Your task to perform on an android device: turn off data saver in the chrome app Image 0: 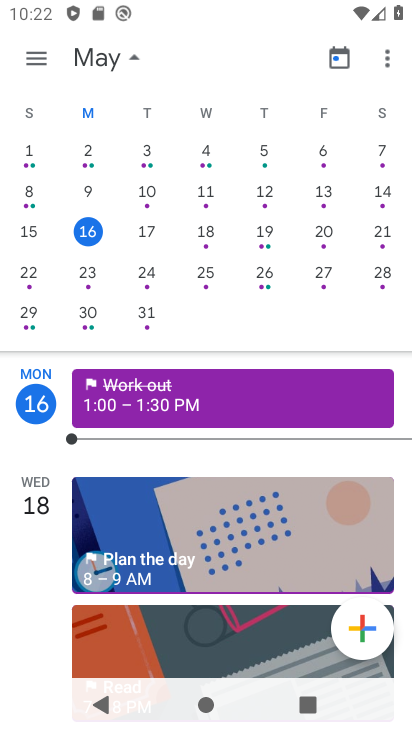
Step 0: press home button
Your task to perform on an android device: turn off data saver in the chrome app Image 1: 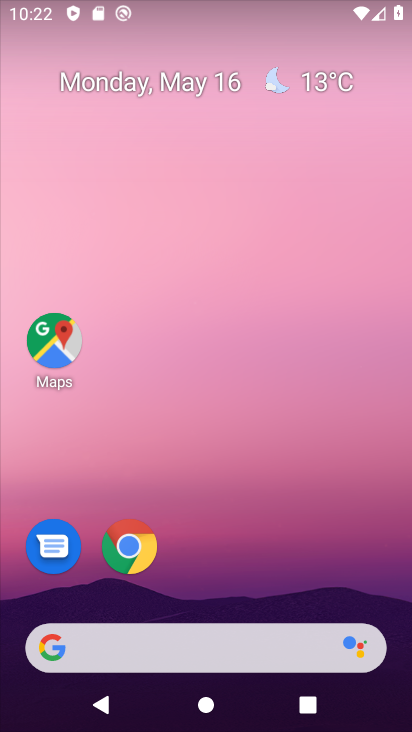
Step 1: drag from (311, 465) to (325, 57)
Your task to perform on an android device: turn off data saver in the chrome app Image 2: 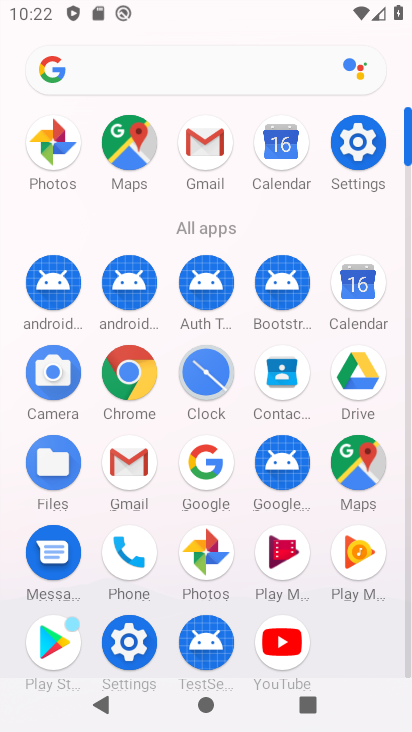
Step 2: click (122, 380)
Your task to perform on an android device: turn off data saver in the chrome app Image 3: 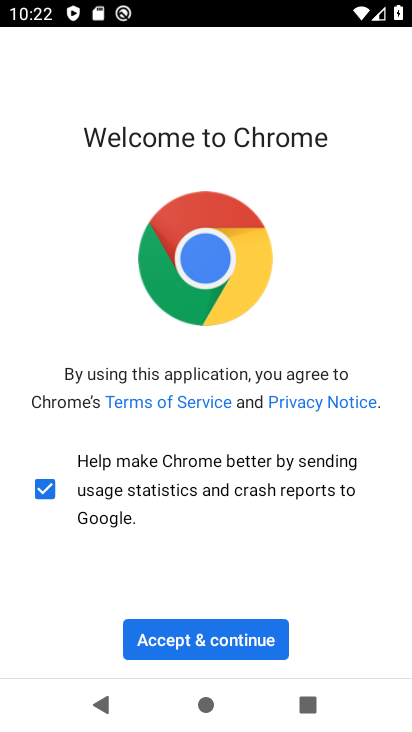
Step 3: click (233, 637)
Your task to perform on an android device: turn off data saver in the chrome app Image 4: 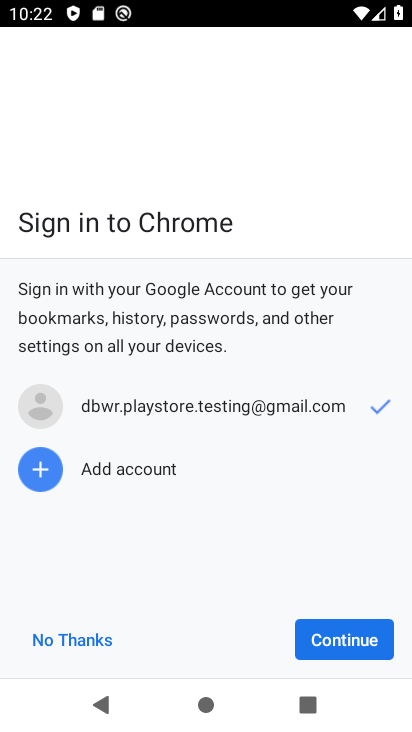
Step 4: click (349, 635)
Your task to perform on an android device: turn off data saver in the chrome app Image 5: 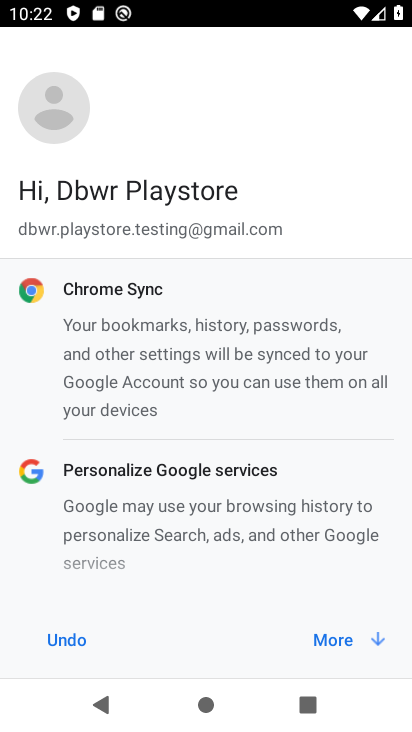
Step 5: click (352, 636)
Your task to perform on an android device: turn off data saver in the chrome app Image 6: 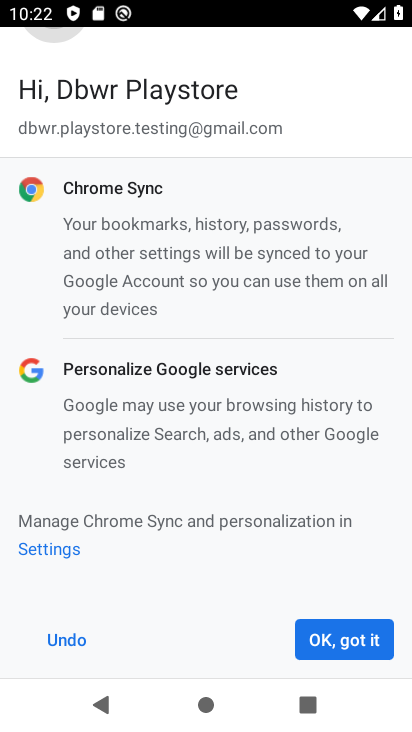
Step 6: click (353, 636)
Your task to perform on an android device: turn off data saver in the chrome app Image 7: 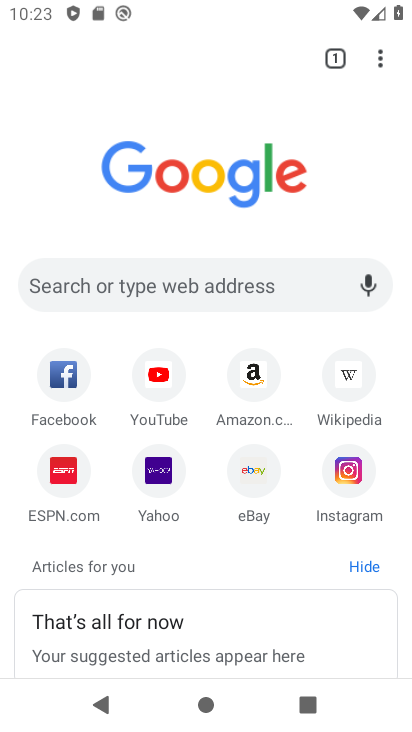
Step 7: drag from (382, 48) to (183, 511)
Your task to perform on an android device: turn off data saver in the chrome app Image 8: 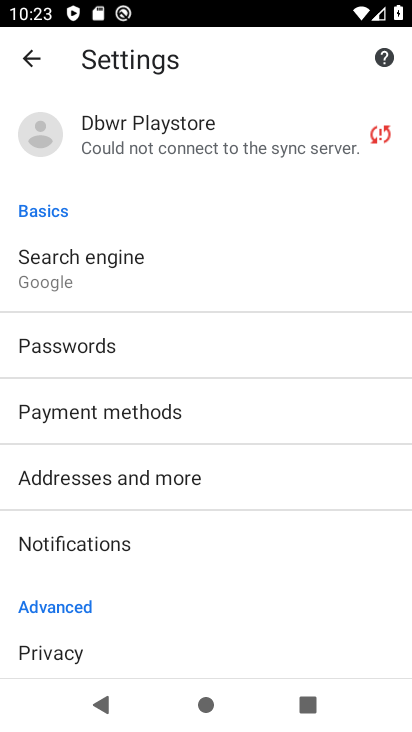
Step 8: drag from (201, 621) to (358, 114)
Your task to perform on an android device: turn off data saver in the chrome app Image 9: 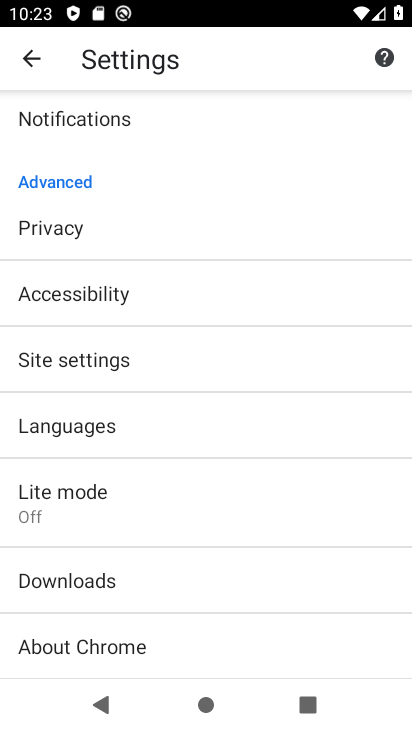
Step 9: click (88, 494)
Your task to perform on an android device: turn off data saver in the chrome app Image 10: 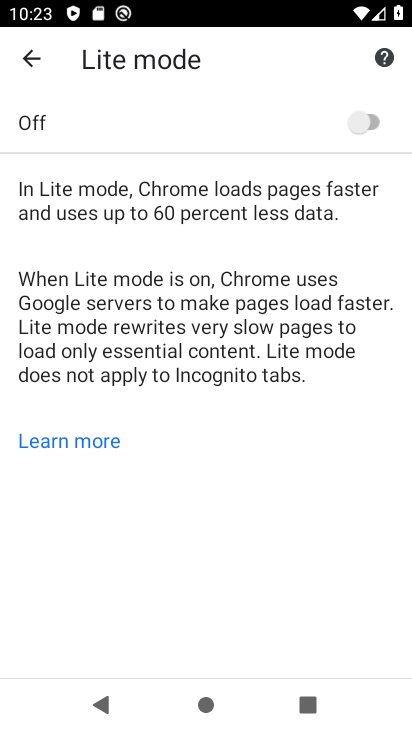
Step 10: task complete